Your task to perform on an android device: Do I have any events today? Image 0: 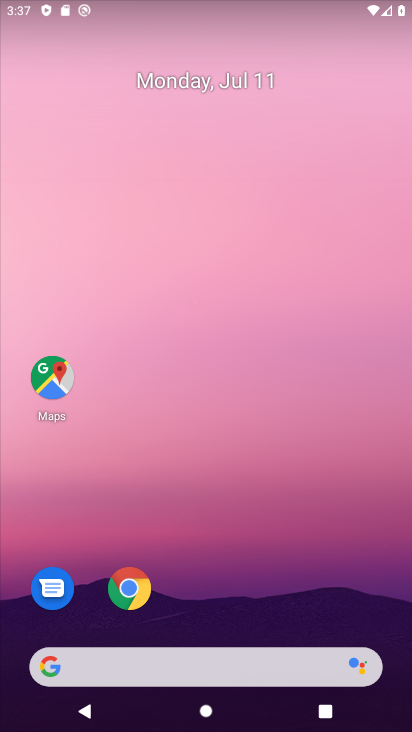
Step 0: press home button
Your task to perform on an android device: Do I have any events today? Image 1: 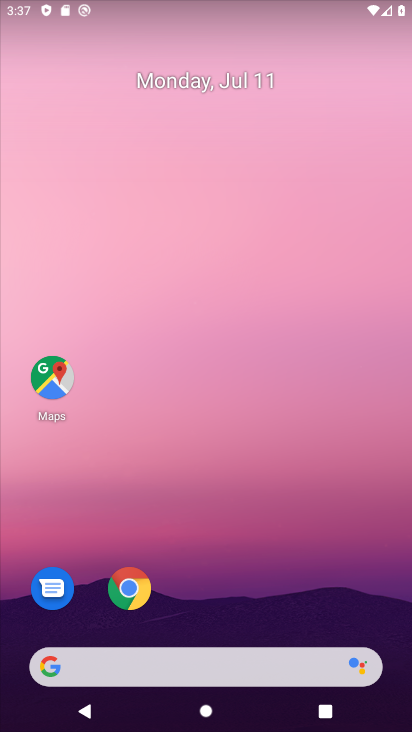
Step 1: drag from (289, 587) to (248, 125)
Your task to perform on an android device: Do I have any events today? Image 2: 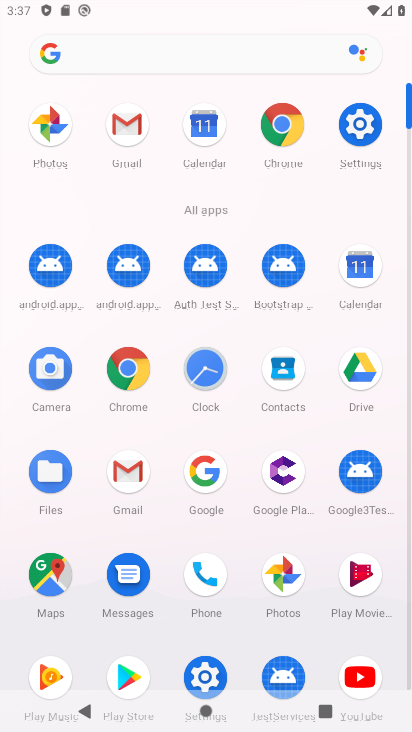
Step 2: click (354, 259)
Your task to perform on an android device: Do I have any events today? Image 3: 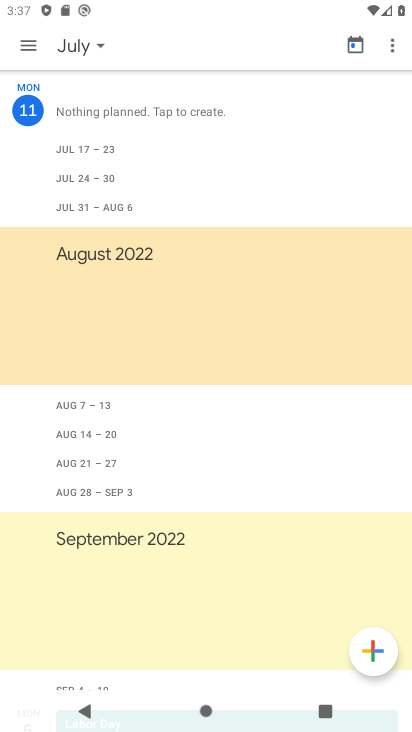
Step 3: task complete